Your task to perform on an android device: turn on bluetooth scan Image 0: 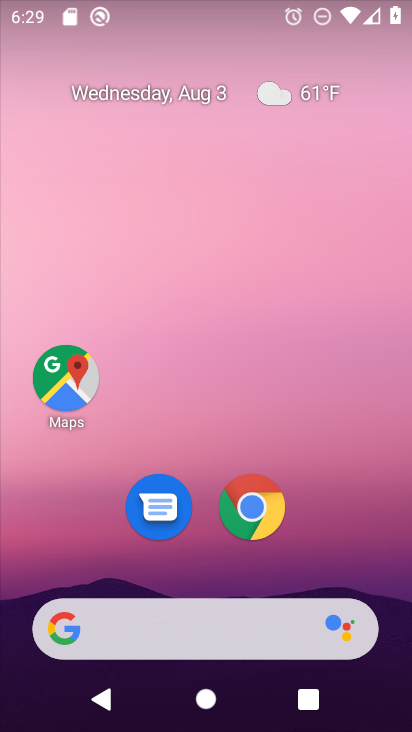
Step 0: drag from (345, 494) to (310, 18)
Your task to perform on an android device: turn on bluetooth scan Image 1: 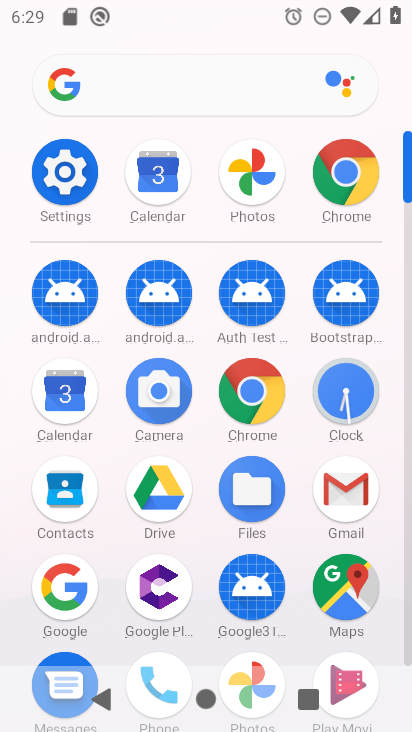
Step 1: click (59, 178)
Your task to perform on an android device: turn on bluetooth scan Image 2: 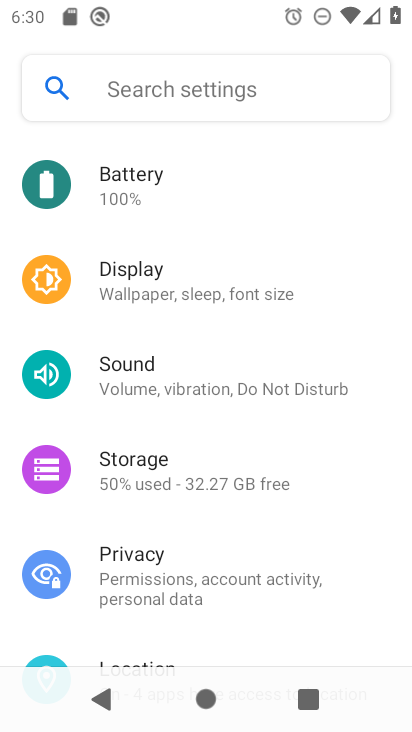
Step 2: drag from (246, 409) to (301, 28)
Your task to perform on an android device: turn on bluetooth scan Image 3: 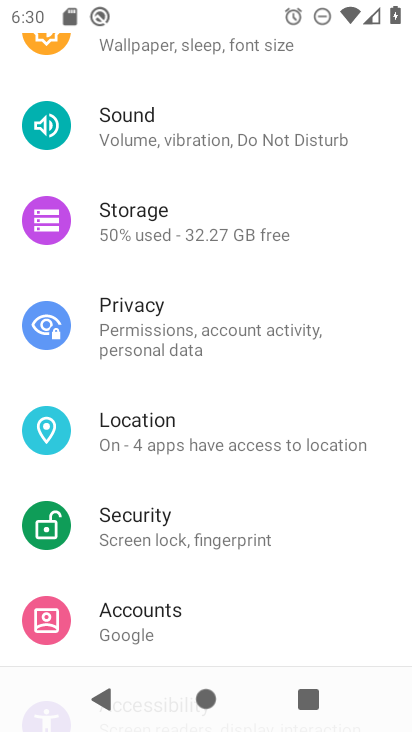
Step 3: click (166, 443)
Your task to perform on an android device: turn on bluetooth scan Image 4: 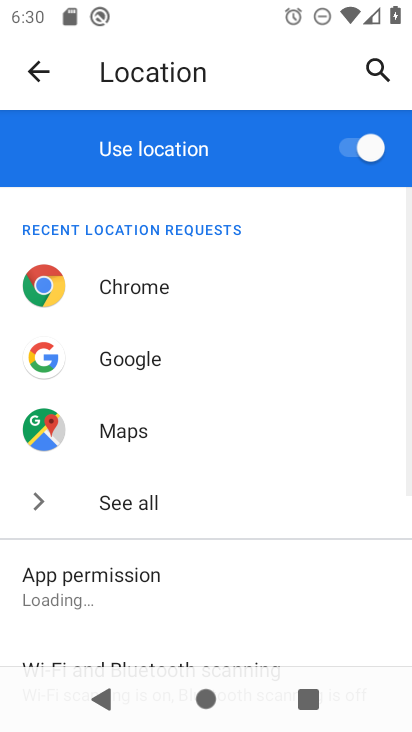
Step 4: drag from (297, 517) to (296, 68)
Your task to perform on an android device: turn on bluetooth scan Image 5: 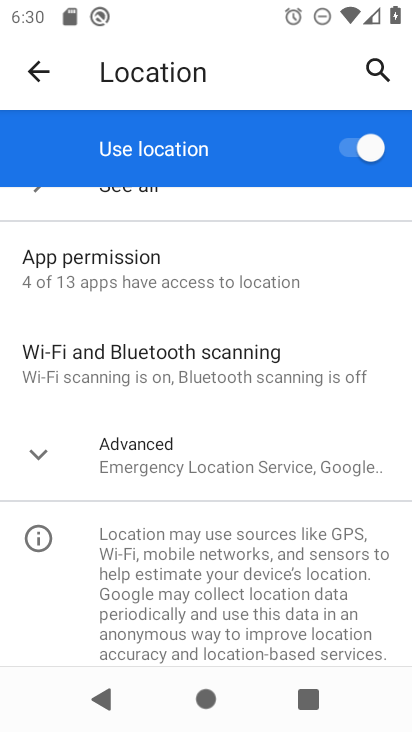
Step 5: click (258, 350)
Your task to perform on an android device: turn on bluetooth scan Image 6: 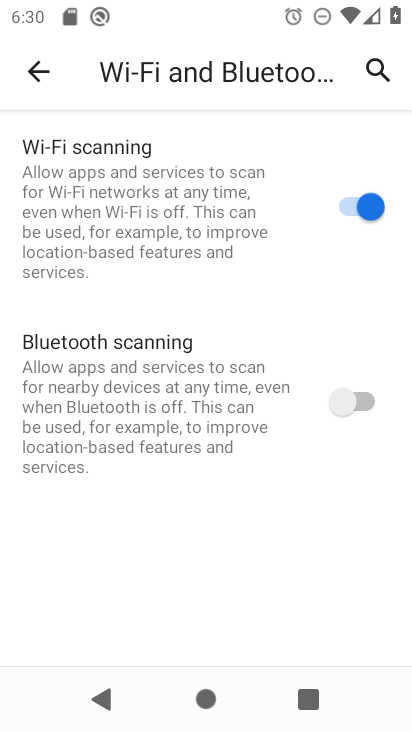
Step 6: click (351, 405)
Your task to perform on an android device: turn on bluetooth scan Image 7: 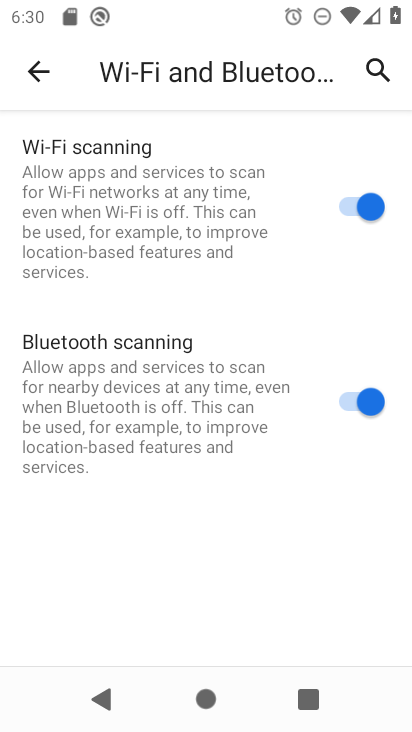
Step 7: task complete